Your task to perform on an android device: Is it going to rain tomorrow? Image 0: 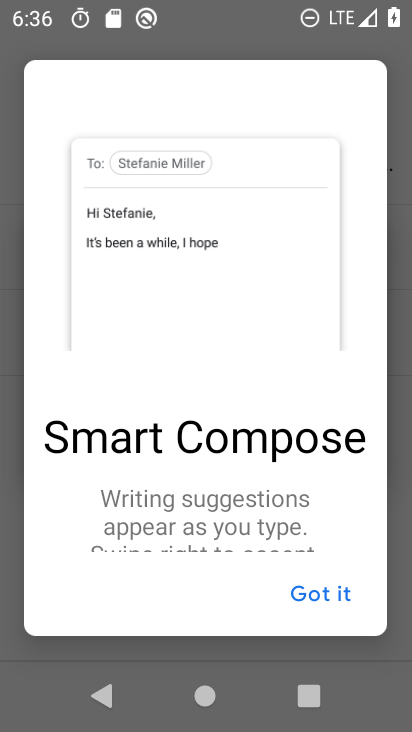
Step 0: press home button
Your task to perform on an android device: Is it going to rain tomorrow? Image 1: 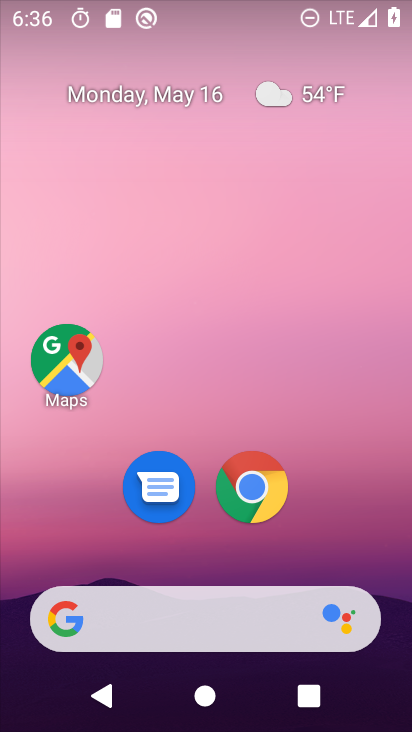
Step 1: drag from (207, 596) to (203, 112)
Your task to perform on an android device: Is it going to rain tomorrow? Image 2: 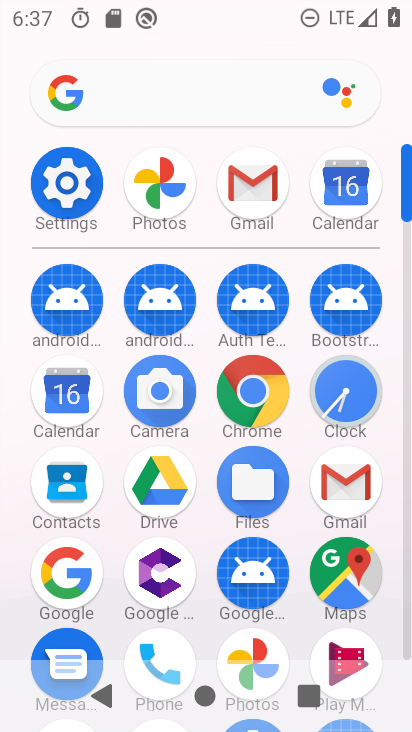
Step 2: click (71, 566)
Your task to perform on an android device: Is it going to rain tomorrow? Image 3: 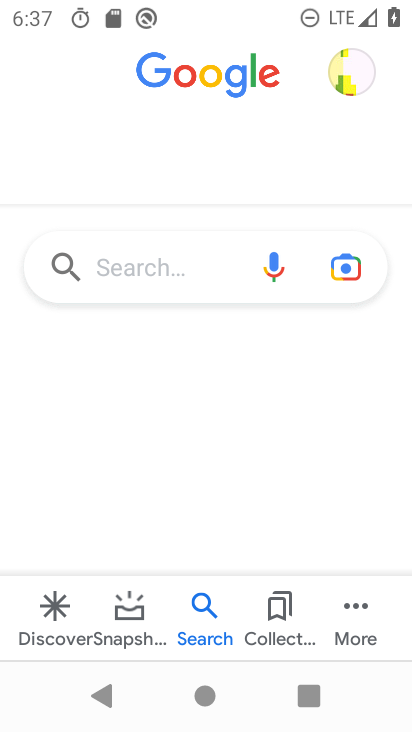
Step 3: click (137, 266)
Your task to perform on an android device: Is it going to rain tomorrow? Image 4: 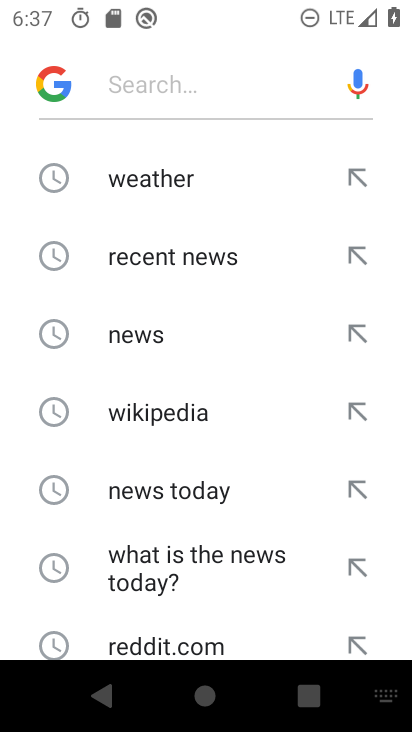
Step 4: drag from (193, 596) to (189, 279)
Your task to perform on an android device: Is it going to rain tomorrow? Image 5: 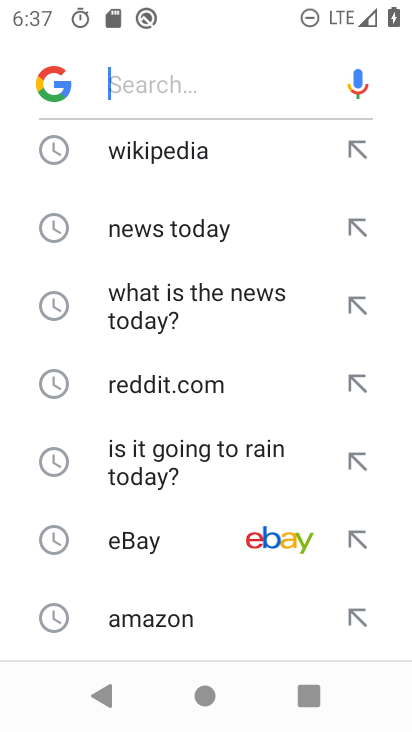
Step 5: drag from (196, 603) to (179, 303)
Your task to perform on an android device: Is it going to rain tomorrow? Image 6: 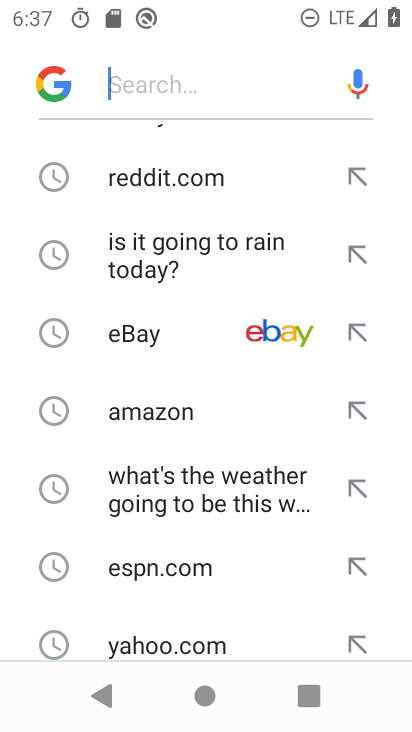
Step 6: drag from (125, 590) to (161, 351)
Your task to perform on an android device: Is it going to rain tomorrow? Image 7: 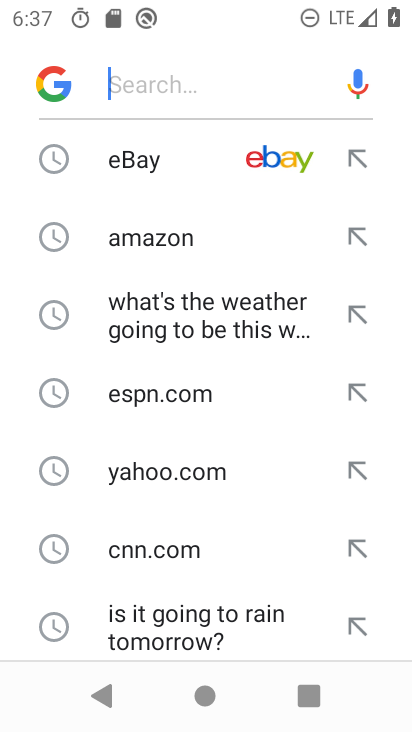
Step 7: click (198, 620)
Your task to perform on an android device: Is it going to rain tomorrow? Image 8: 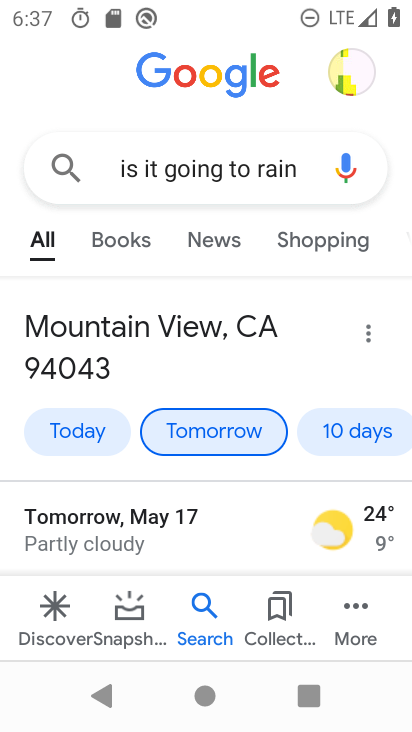
Step 8: drag from (210, 533) to (218, 218)
Your task to perform on an android device: Is it going to rain tomorrow? Image 9: 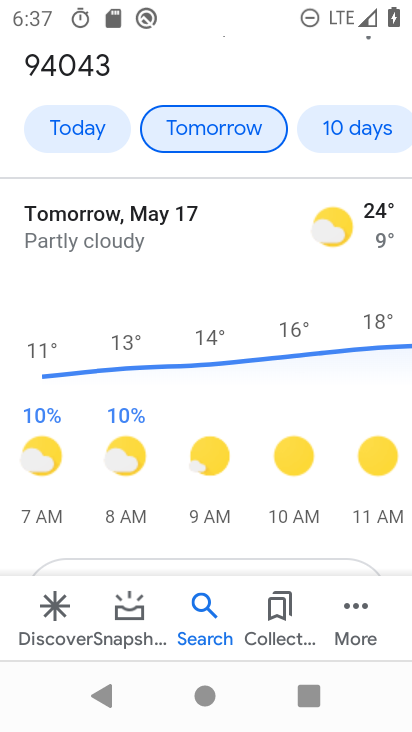
Step 9: drag from (229, 528) to (229, 228)
Your task to perform on an android device: Is it going to rain tomorrow? Image 10: 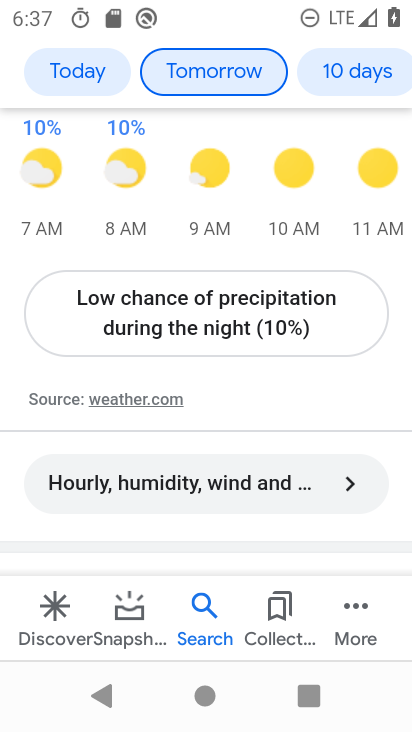
Step 10: click (236, 474)
Your task to perform on an android device: Is it going to rain tomorrow? Image 11: 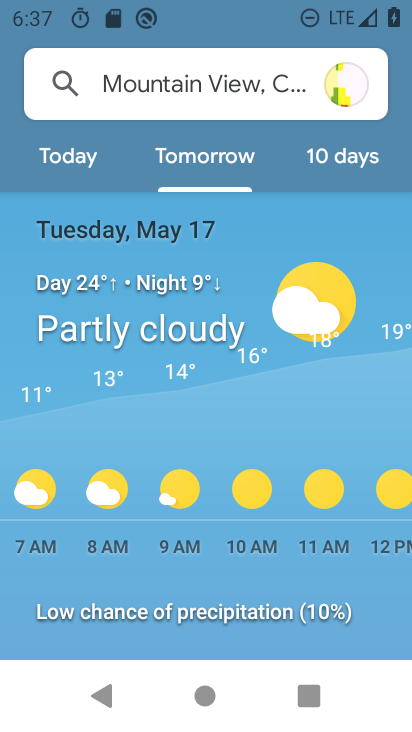
Step 11: task complete